Your task to perform on an android device: Open the map Image 0: 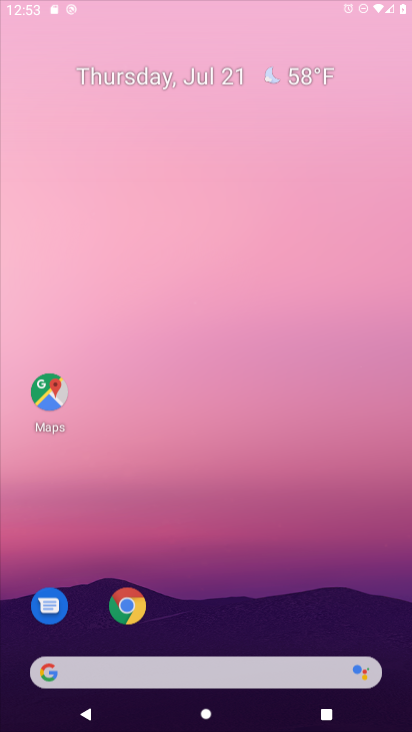
Step 0: press home button
Your task to perform on an android device: Open the map Image 1: 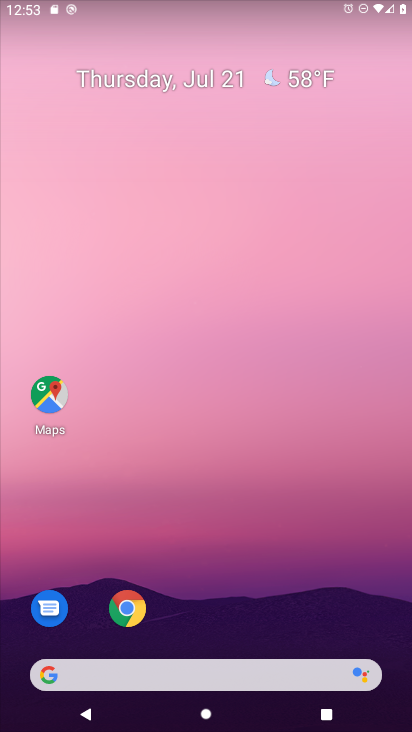
Step 1: drag from (280, 610) to (284, 127)
Your task to perform on an android device: Open the map Image 2: 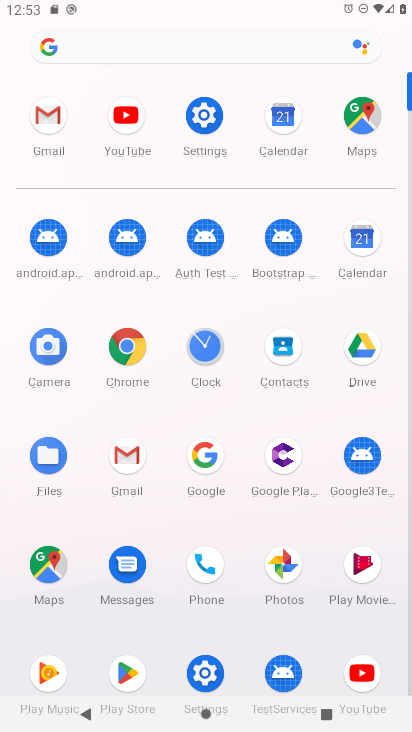
Step 2: click (46, 558)
Your task to perform on an android device: Open the map Image 3: 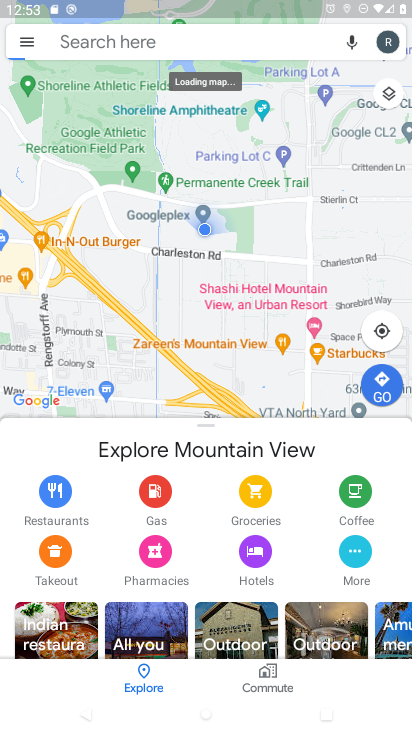
Step 3: task complete